Your task to perform on an android device: Open Google Chrome and open the bookmarks view Image 0: 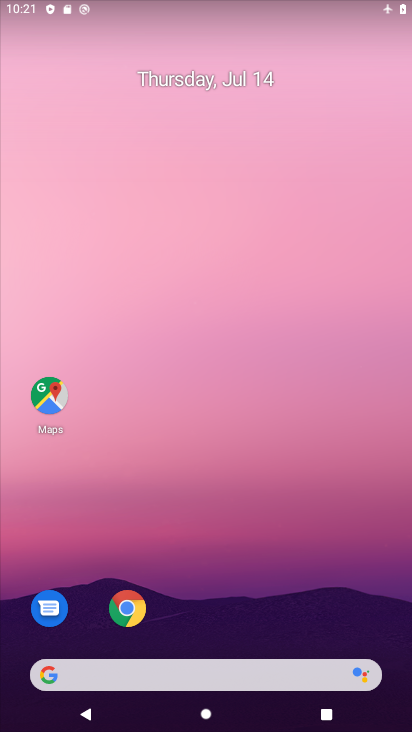
Step 0: drag from (232, 616) to (236, 4)
Your task to perform on an android device: Open Google Chrome and open the bookmarks view Image 1: 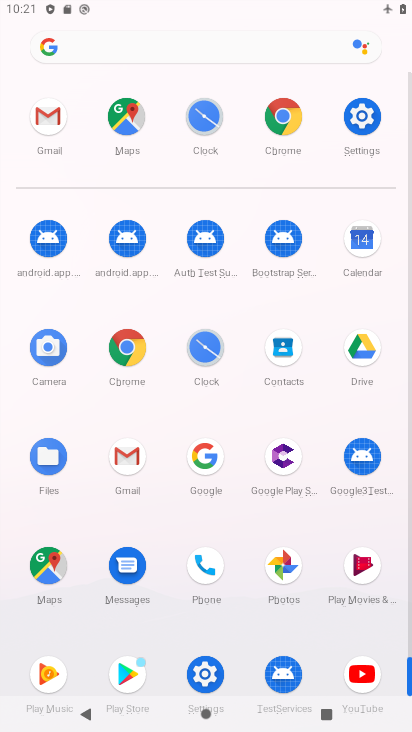
Step 1: click (122, 366)
Your task to perform on an android device: Open Google Chrome and open the bookmarks view Image 2: 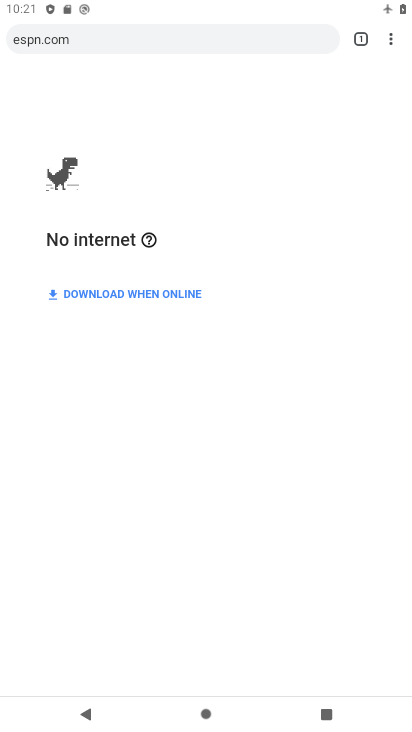
Step 2: click (393, 39)
Your task to perform on an android device: Open Google Chrome and open the bookmarks view Image 3: 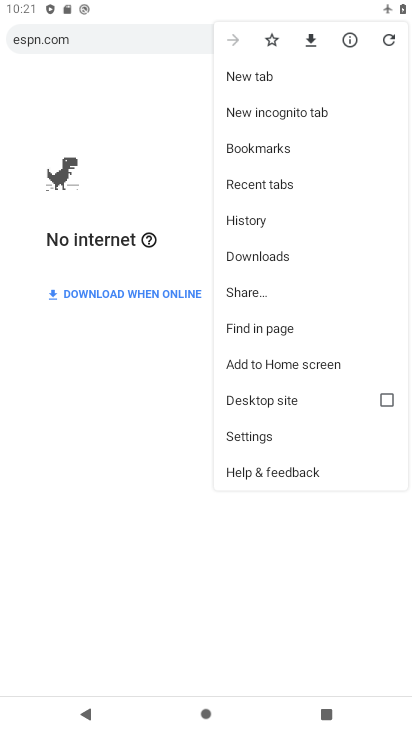
Step 3: click (278, 144)
Your task to perform on an android device: Open Google Chrome and open the bookmarks view Image 4: 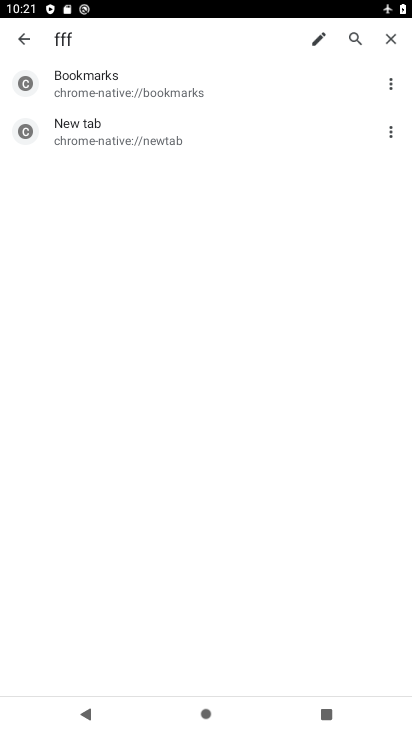
Step 4: click (132, 88)
Your task to perform on an android device: Open Google Chrome and open the bookmarks view Image 5: 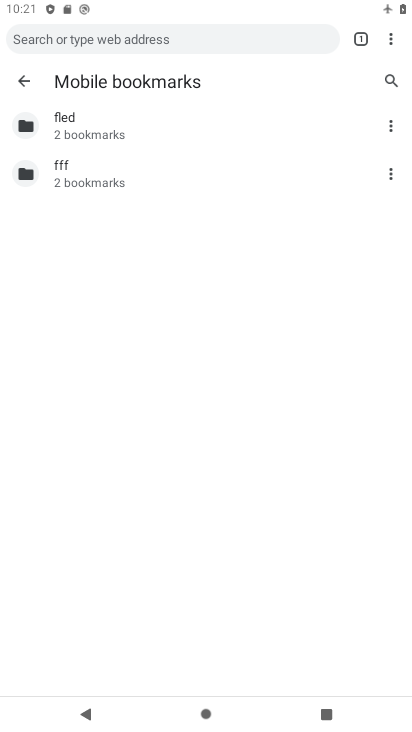
Step 5: task complete